Your task to perform on an android device: change the clock display to show seconds Image 0: 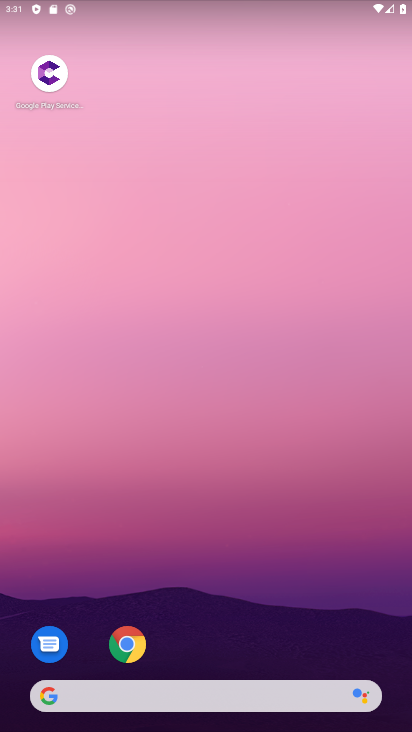
Step 0: drag from (254, 571) to (164, 13)
Your task to perform on an android device: change the clock display to show seconds Image 1: 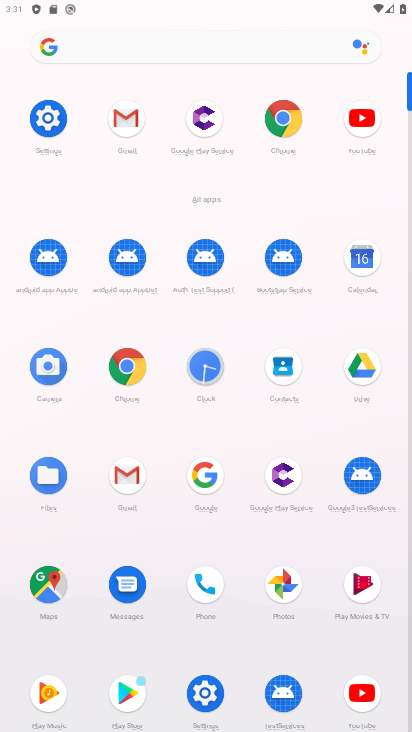
Step 1: click (200, 378)
Your task to perform on an android device: change the clock display to show seconds Image 2: 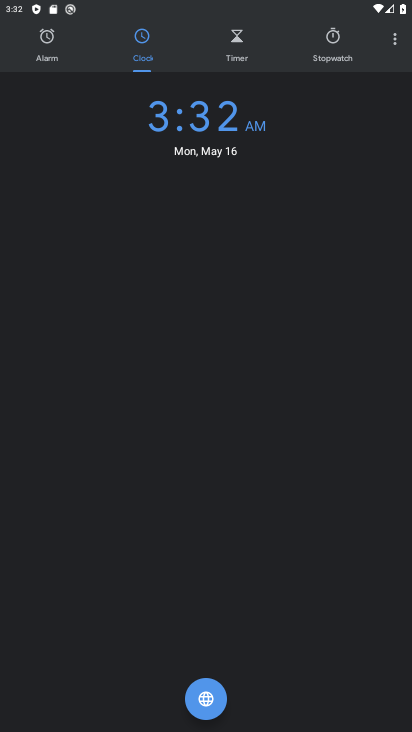
Step 2: click (385, 37)
Your task to perform on an android device: change the clock display to show seconds Image 3: 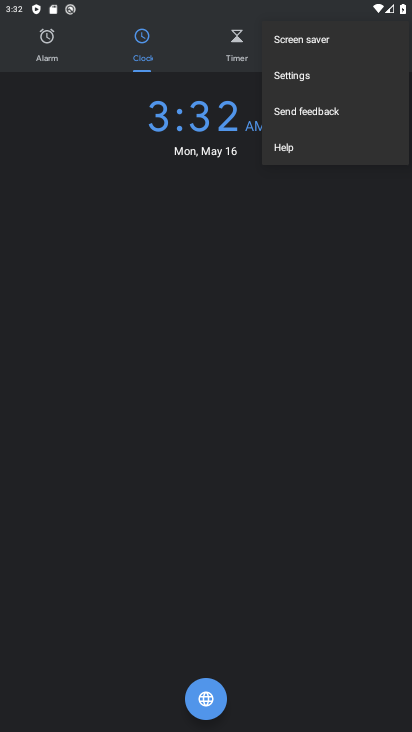
Step 3: click (304, 74)
Your task to perform on an android device: change the clock display to show seconds Image 4: 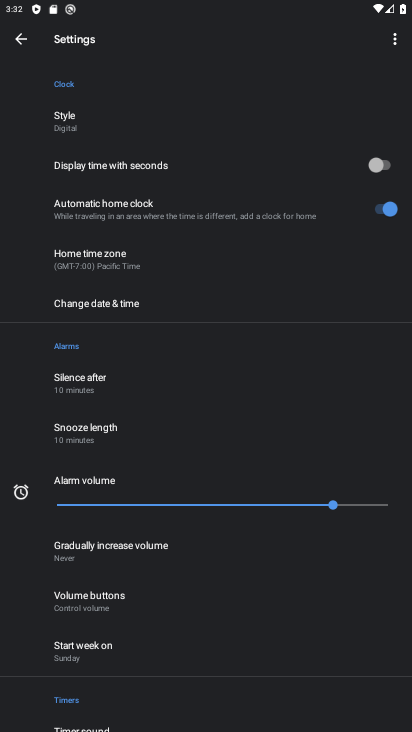
Step 4: click (383, 164)
Your task to perform on an android device: change the clock display to show seconds Image 5: 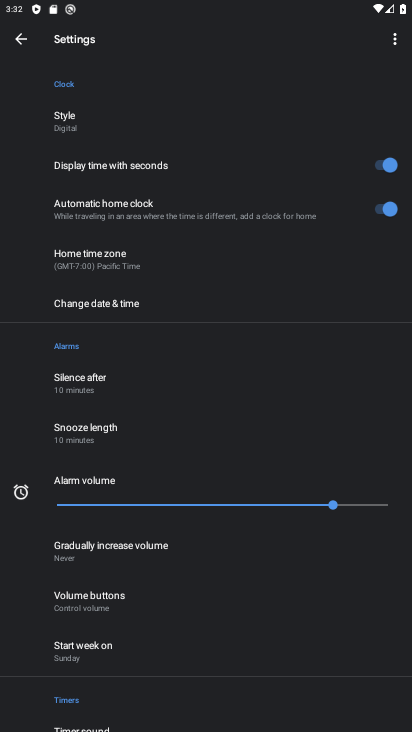
Step 5: task complete